Your task to perform on an android device: turn off notifications in google photos Image 0: 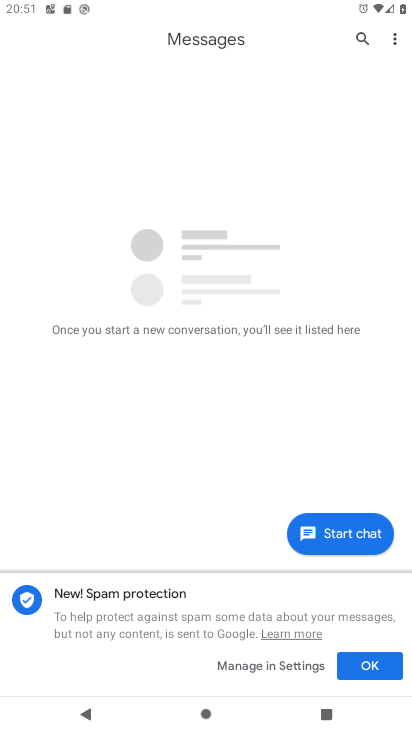
Step 0: press home button
Your task to perform on an android device: turn off notifications in google photos Image 1: 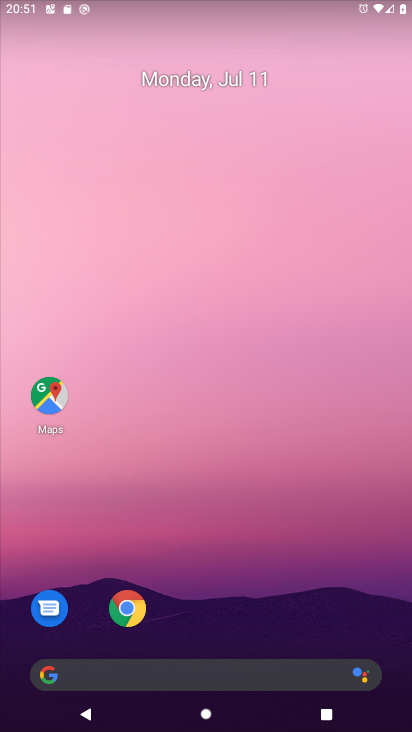
Step 1: drag from (211, 624) to (203, 97)
Your task to perform on an android device: turn off notifications in google photos Image 2: 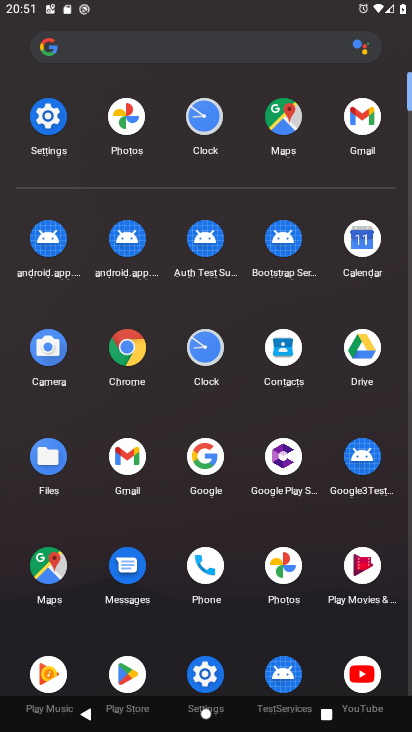
Step 2: click (110, 130)
Your task to perform on an android device: turn off notifications in google photos Image 3: 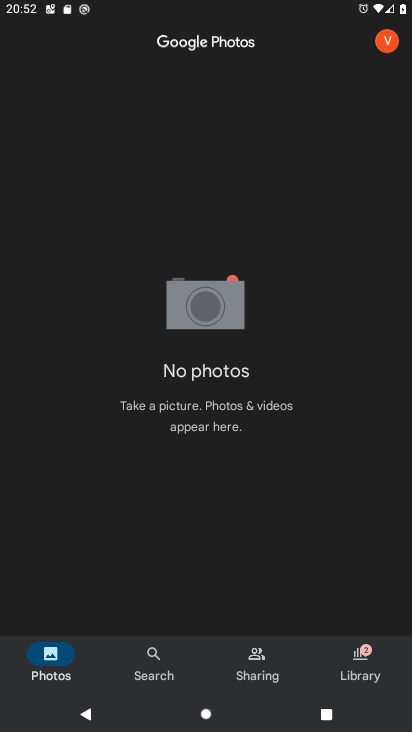
Step 3: click (387, 62)
Your task to perform on an android device: turn off notifications in google photos Image 4: 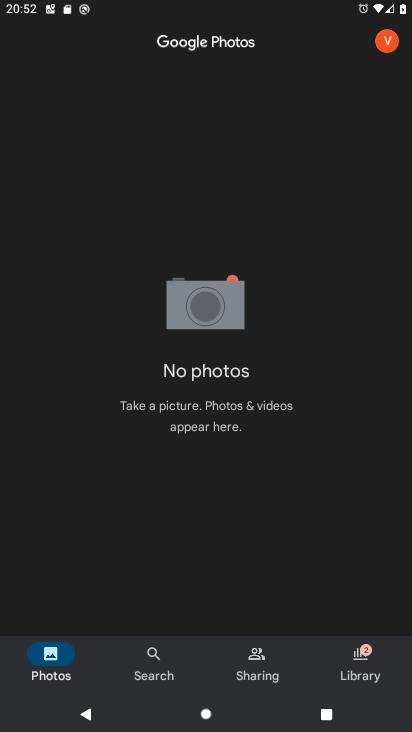
Step 4: click (382, 44)
Your task to perform on an android device: turn off notifications in google photos Image 5: 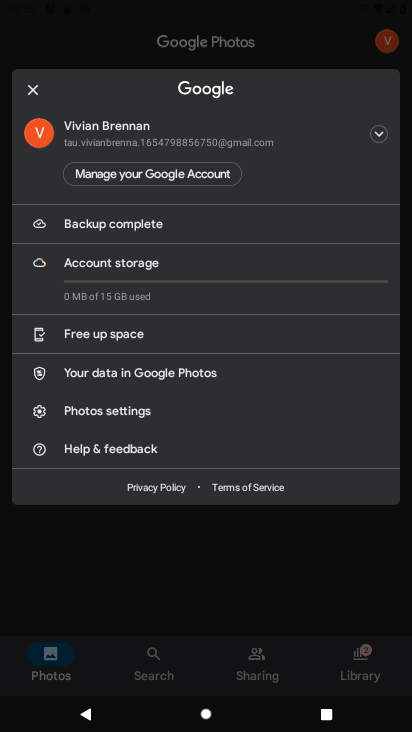
Step 5: click (151, 398)
Your task to perform on an android device: turn off notifications in google photos Image 6: 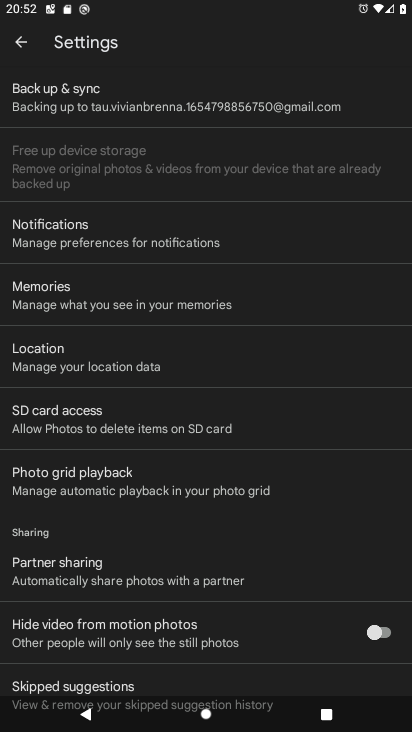
Step 6: click (94, 229)
Your task to perform on an android device: turn off notifications in google photos Image 7: 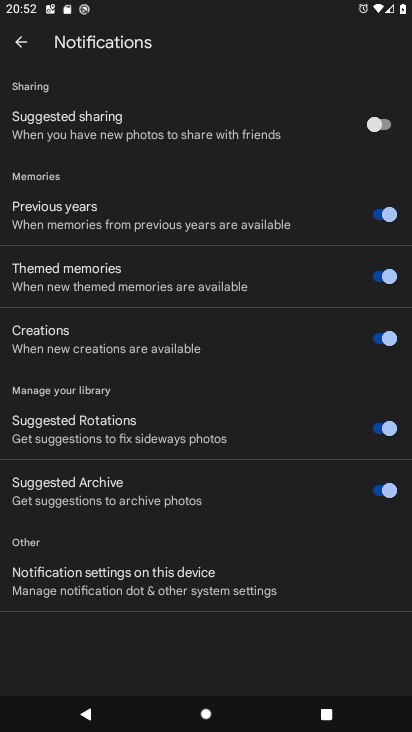
Step 7: click (376, 133)
Your task to perform on an android device: turn off notifications in google photos Image 8: 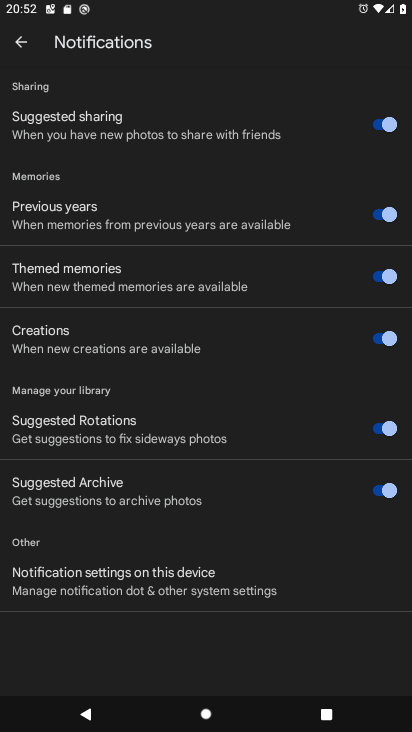
Step 8: task complete